Your task to perform on an android device: Go to Android settings Image 0: 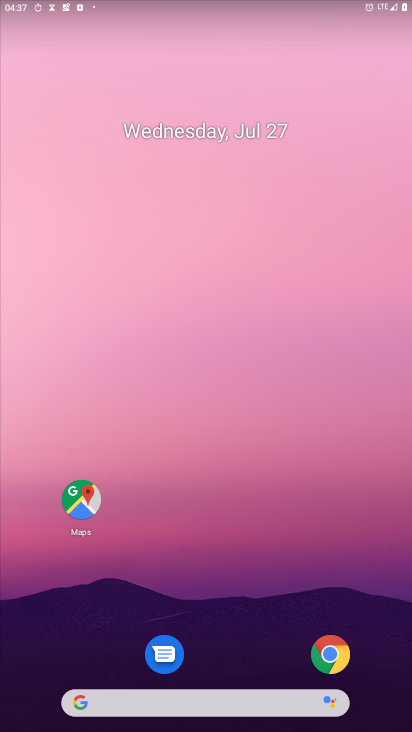
Step 0: drag from (232, 662) to (303, 18)
Your task to perform on an android device: Go to Android settings Image 1: 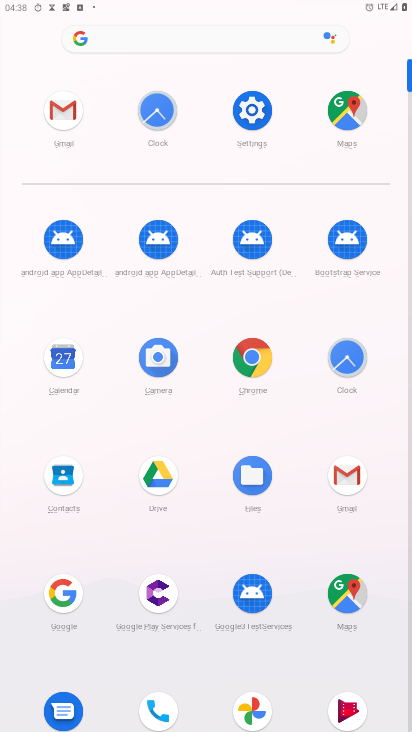
Step 1: click (257, 108)
Your task to perform on an android device: Go to Android settings Image 2: 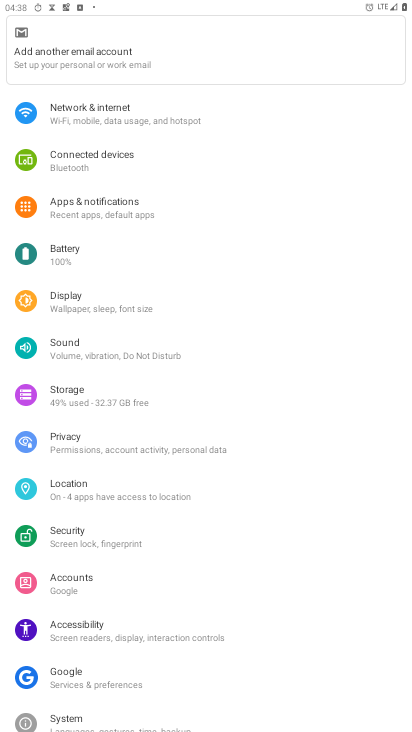
Step 2: drag from (118, 667) to (117, 277)
Your task to perform on an android device: Go to Android settings Image 3: 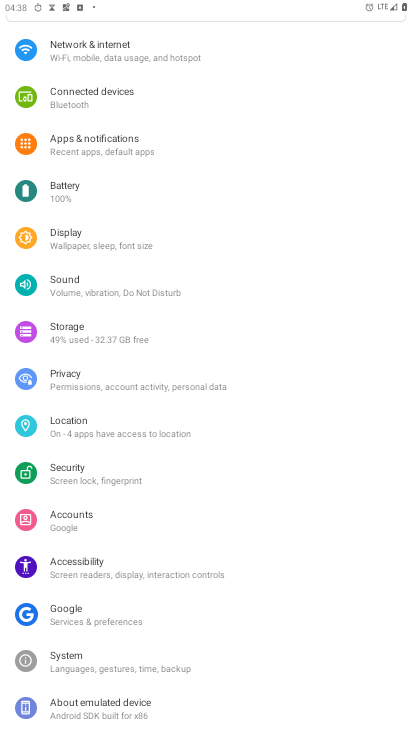
Step 3: click (91, 702)
Your task to perform on an android device: Go to Android settings Image 4: 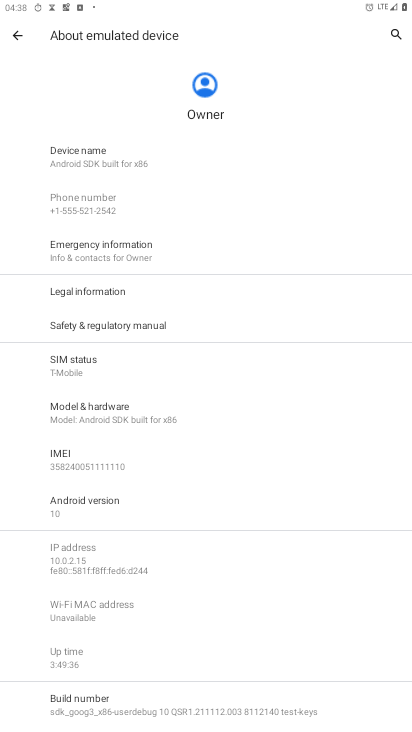
Step 4: click (114, 505)
Your task to perform on an android device: Go to Android settings Image 5: 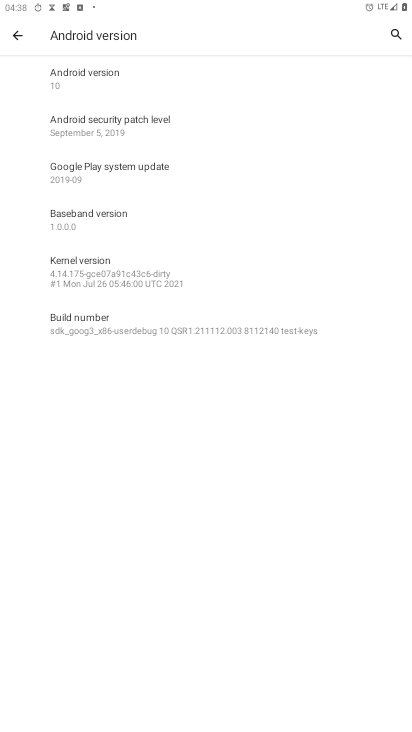
Step 5: task complete